Your task to perform on an android device: toggle javascript in the chrome app Image 0: 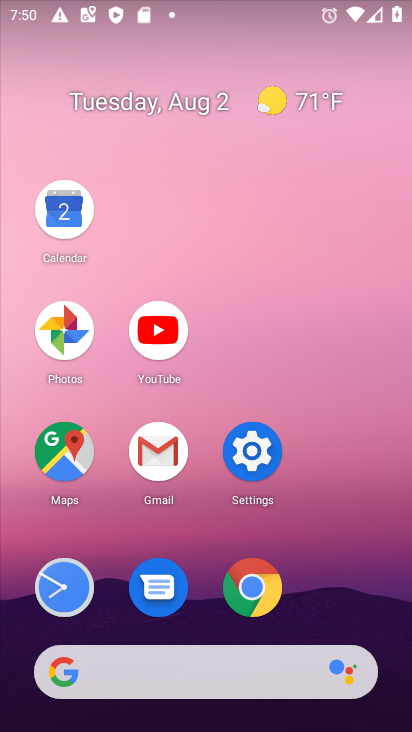
Step 0: click (258, 584)
Your task to perform on an android device: toggle javascript in the chrome app Image 1: 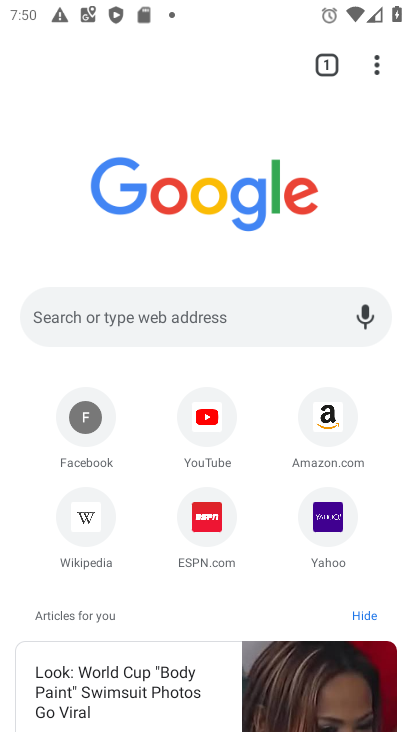
Step 1: click (374, 58)
Your task to perform on an android device: toggle javascript in the chrome app Image 2: 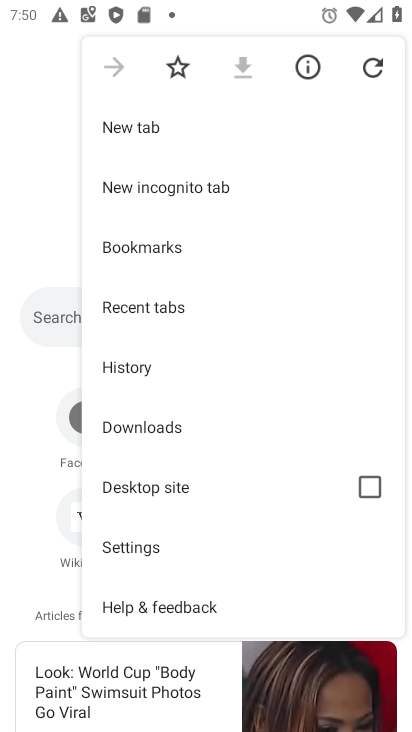
Step 2: click (135, 547)
Your task to perform on an android device: toggle javascript in the chrome app Image 3: 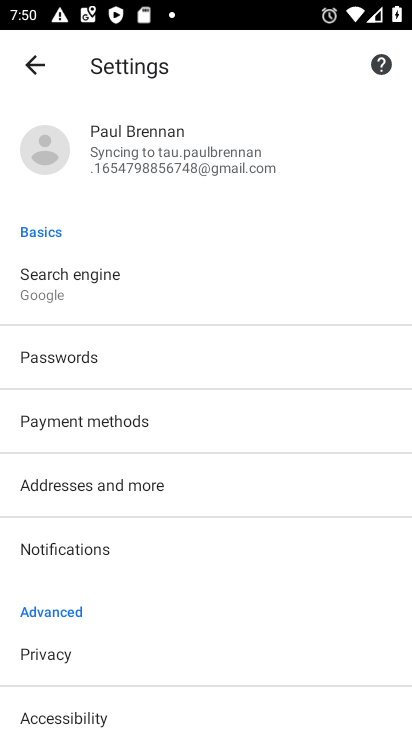
Step 3: drag from (211, 614) to (180, 161)
Your task to perform on an android device: toggle javascript in the chrome app Image 4: 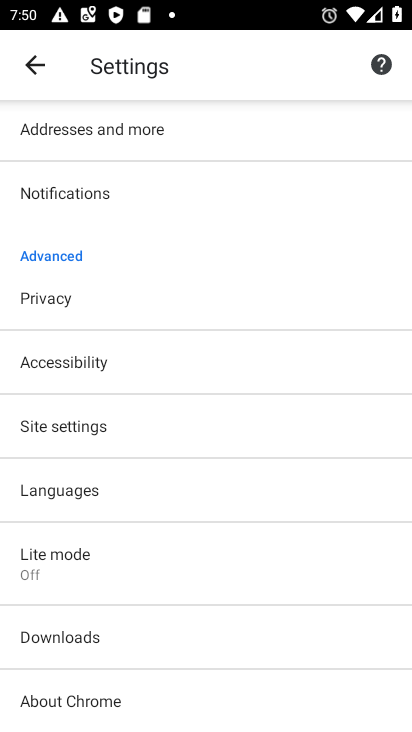
Step 4: click (63, 427)
Your task to perform on an android device: toggle javascript in the chrome app Image 5: 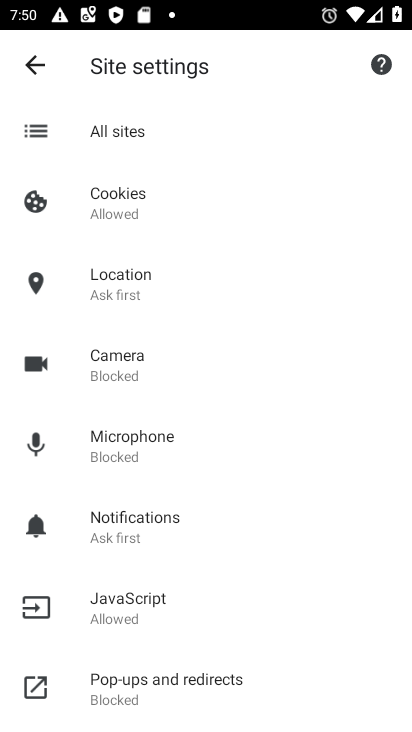
Step 5: click (141, 605)
Your task to perform on an android device: toggle javascript in the chrome app Image 6: 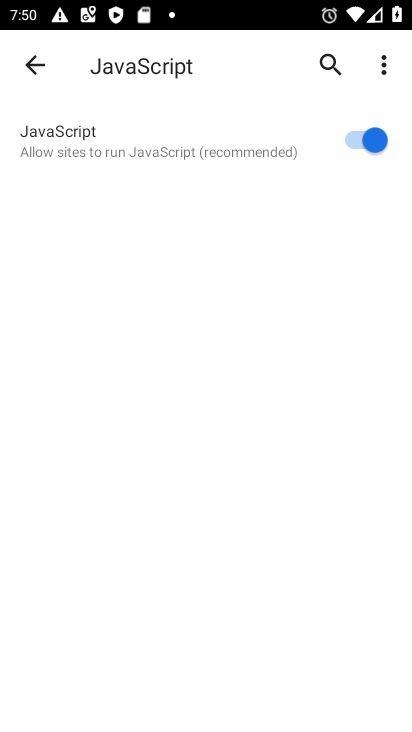
Step 6: click (363, 144)
Your task to perform on an android device: toggle javascript in the chrome app Image 7: 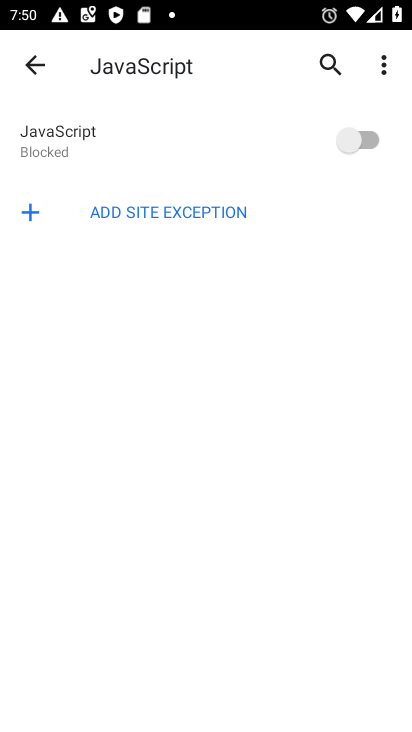
Step 7: task complete